Your task to perform on an android device: toggle translation in the chrome app Image 0: 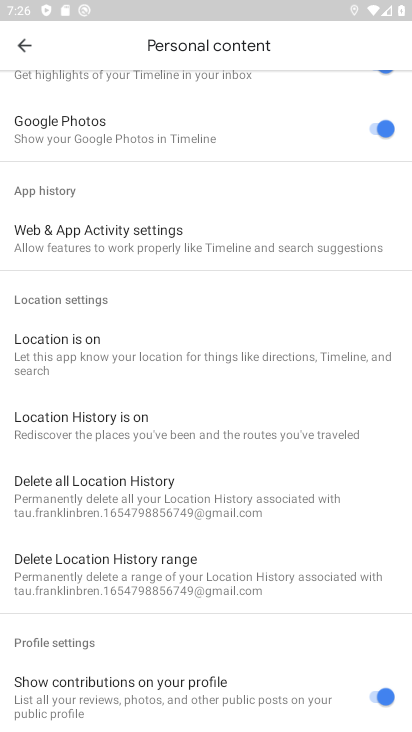
Step 0: press home button
Your task to perform on an android device: toggle translation in the chrome app Image 1: 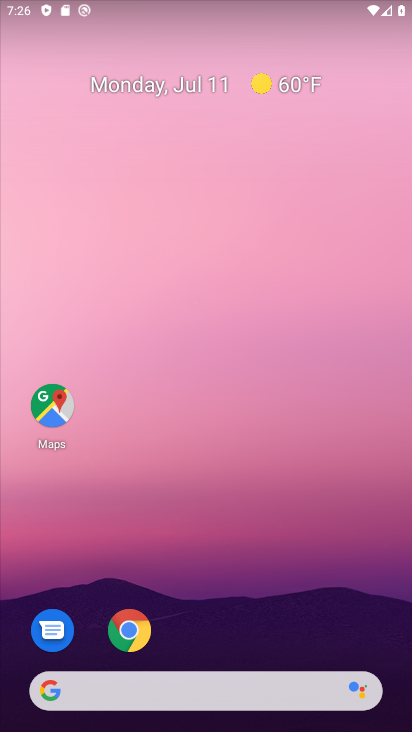
Step 1: click (127, 632)
Your task to perform on an android device: toggle translation in the chrome app Image 2: 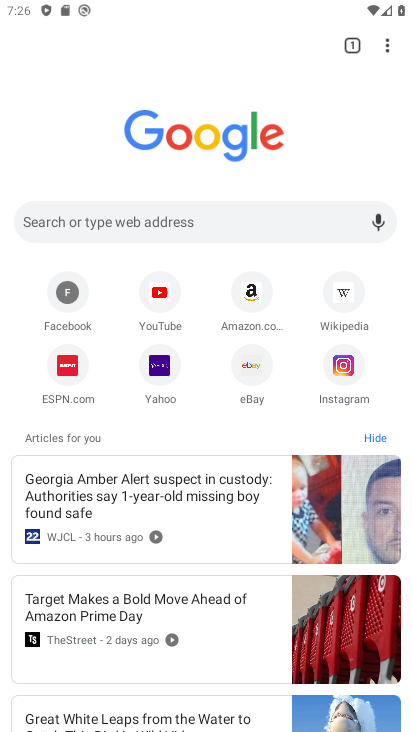
Step 2: click (385, 51)
Your task to perform on an android device: toggle translation in the chrome app Image 3: 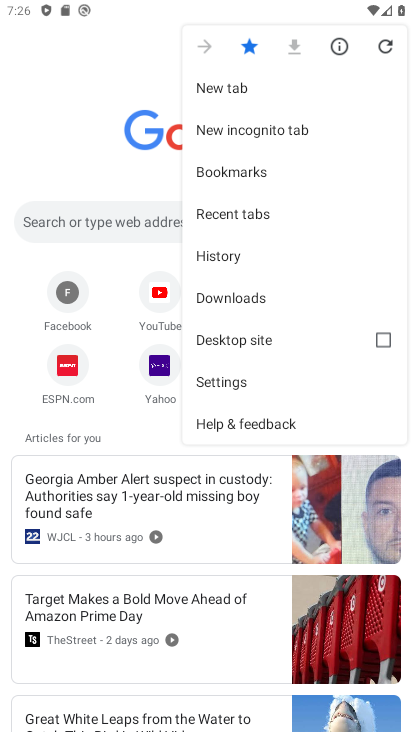
Step 3: click (231, 378)
Your task to perform on an android device: toggle translation in the chrome app Image 4: 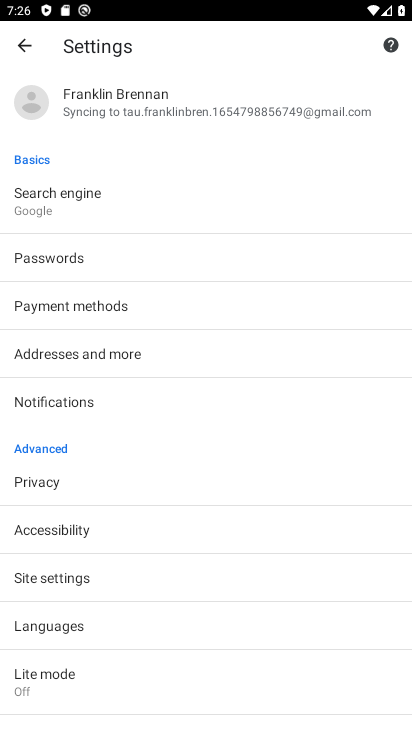
Step 4: click (58, 636)
Your task to perform on an android device: toggle translation in the chrome app Image 5: 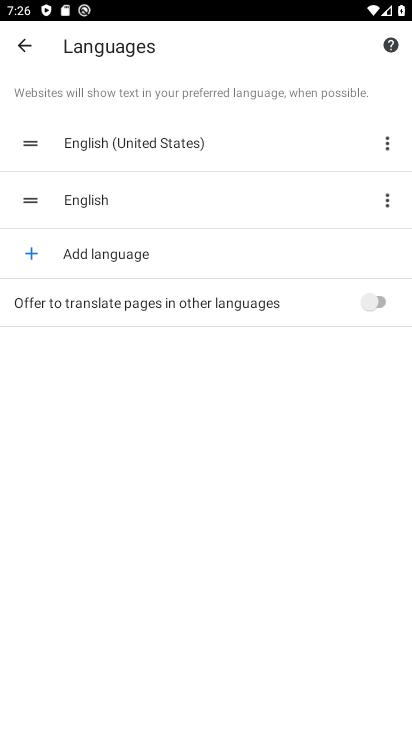
Step 5: click (381, 302)
Your task to perform on an android device: toggle translation in the chrome app Image 6: 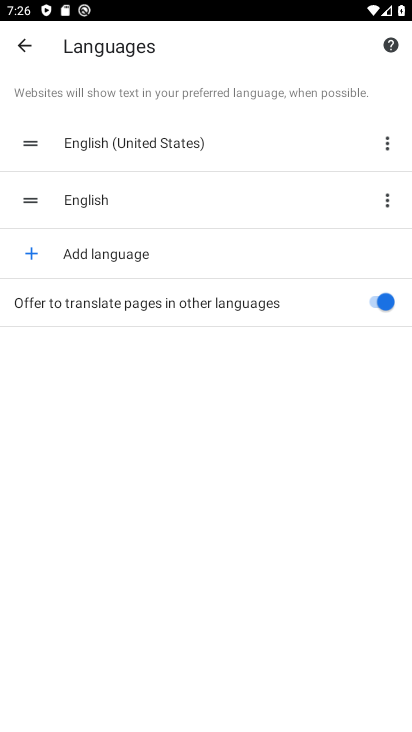
Step 6: task complete